Your task to perform on an android device: turn on translation in the chrome app Image 0: 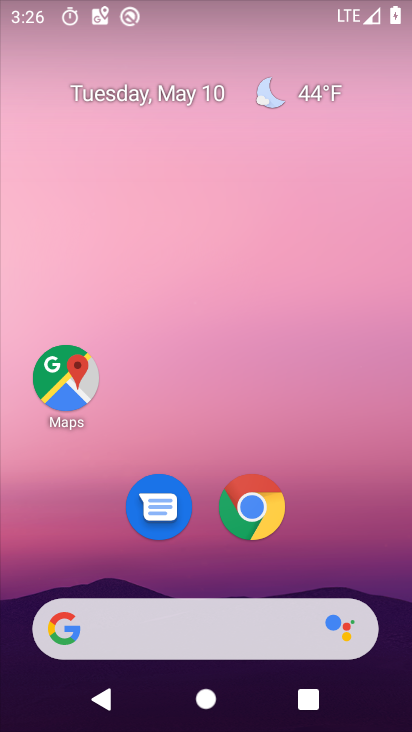
Step 0: click (241, 514)
Your task to perform on an android device: turn on translation in the chrome app Image 1: 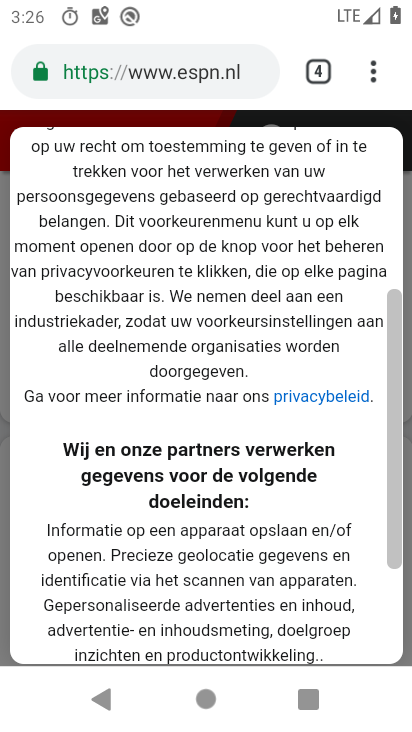
Step 1: click (375, 65)
Your task to perform on an android device: turn on translation in the chrome app Image 2: 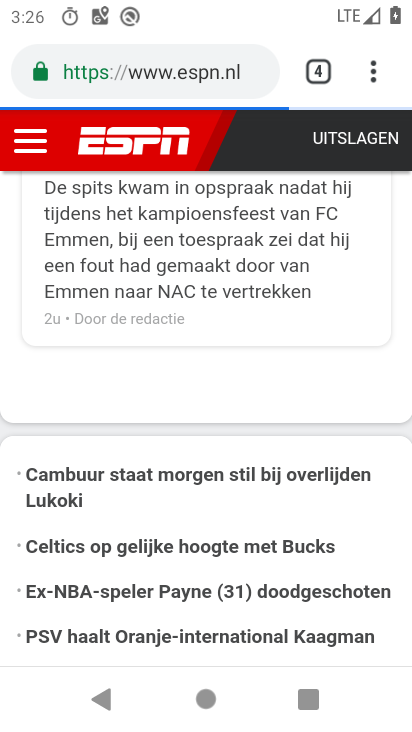
Step 2: click (375, 65)
Your task to perform on an android device: turn on translation in the chrome app Image 3: 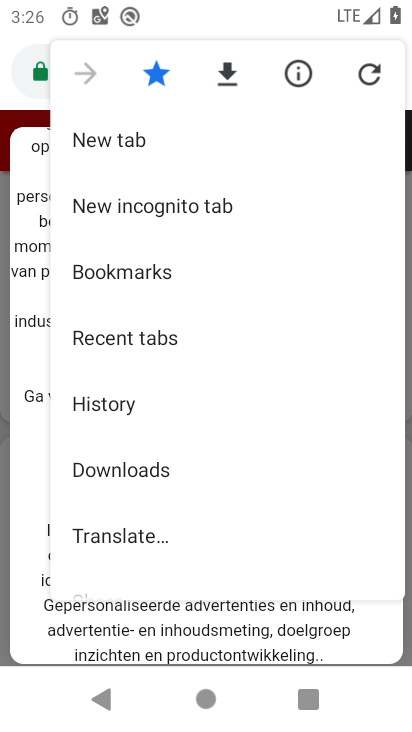
Step 3: drag from (189, 544) to (181, 351)
Your task to perform on an android device: turn on translation in the chrome app Image 4: 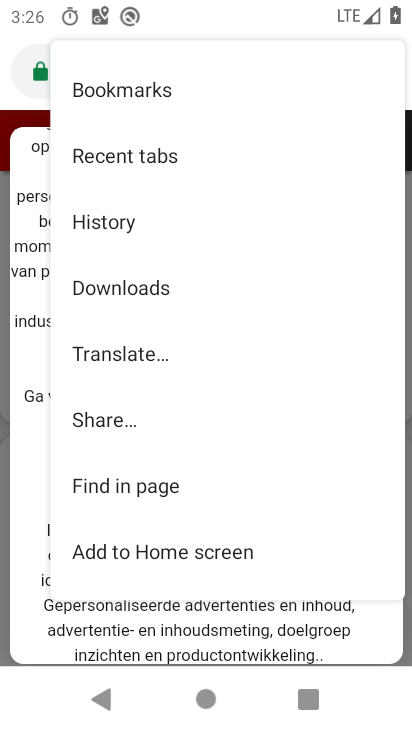
Step 4: drag from (205, 552) to (171, 268)
Your task to perform on an android device: turn on translation in the chrome app Image 5: 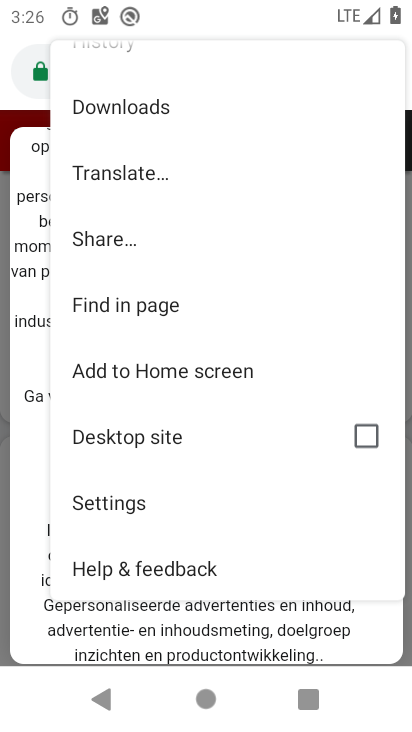
Step 5: click (106, 178)
Your task to perform on an android device: turn on translation in the chrome app Image 6: 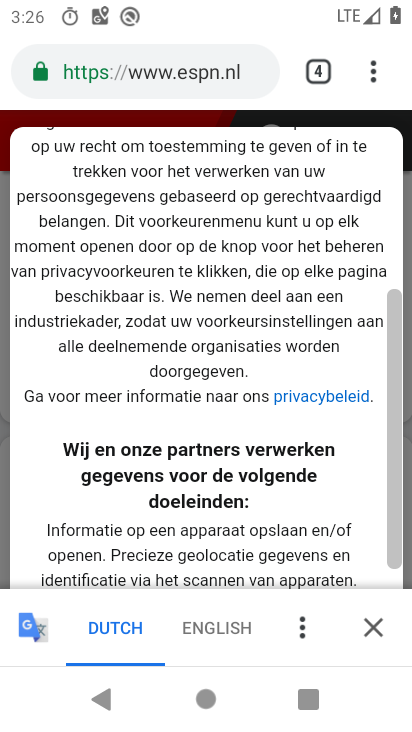
Step 6: click (369, 70)
Your task to perform on an android device: turn on translation in the chrome app Image 7: 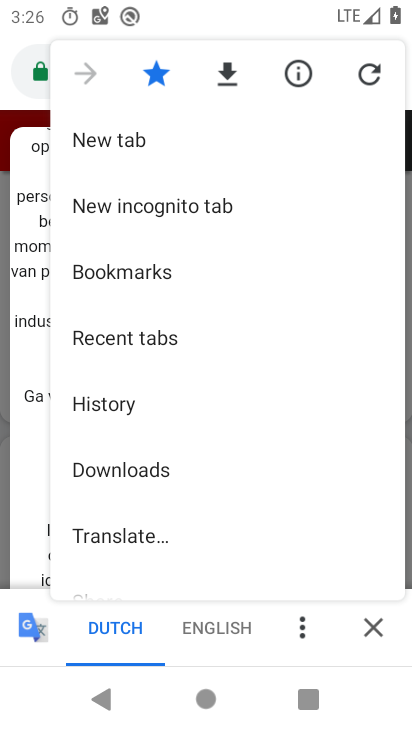
Step 7: drag from (190, 560) to (209, 239)
Your task to perform on an android device: turn on translation in the chrome app Image 8: 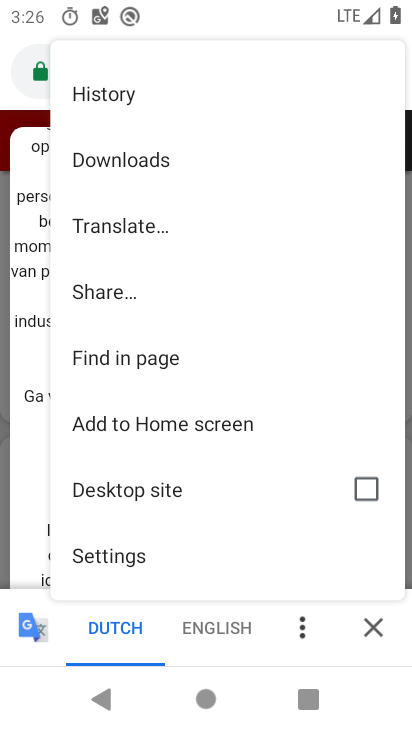
Step 8: click (126, 562)
Your task to perform on an android device: turn on translation in the chrome app Image 9: 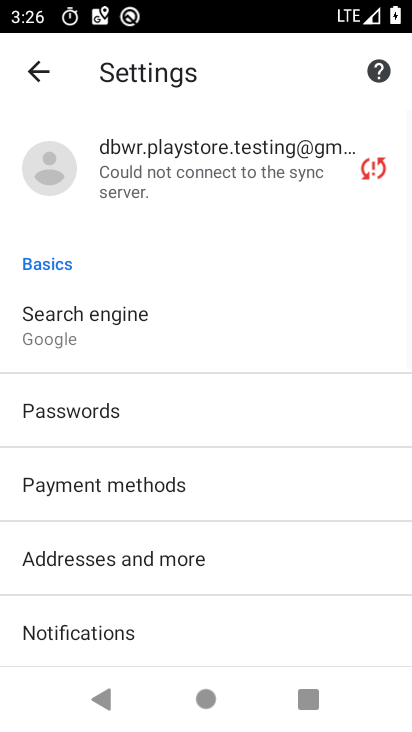
Step 9: drag from (137, 588) to (138, 242)
Your task to perform on an android device: turn on translation in the chrome app Image 10: 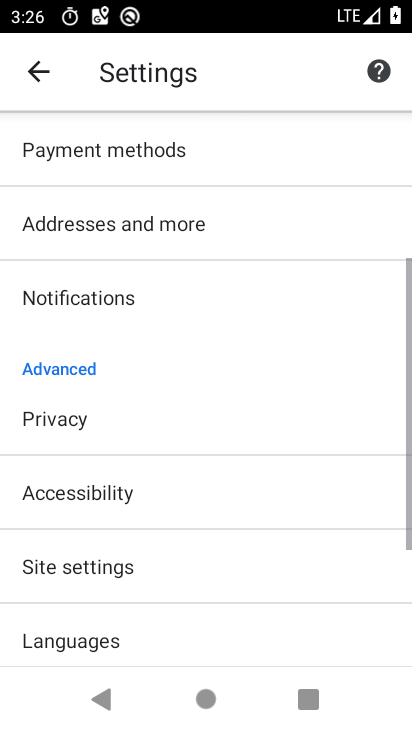
Step 10: drag from (121, 613) to (124, 353)
Your task to perform on an android device: turn on translation in the chrome app Image 11: 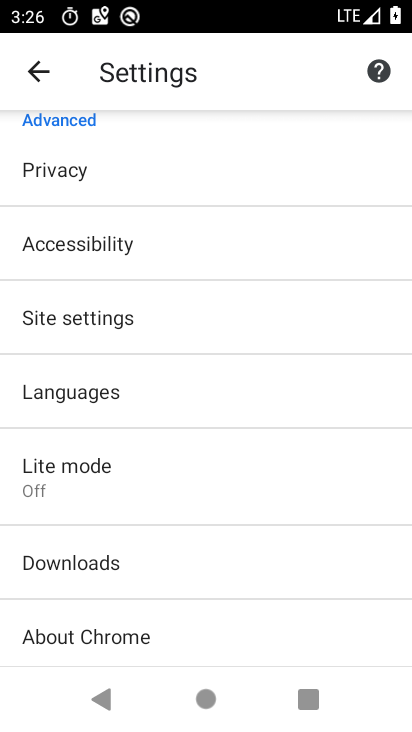
Step 11: click (54, 397)
Your task to perform on an android device: turn on translation in the chrome app Image 12: 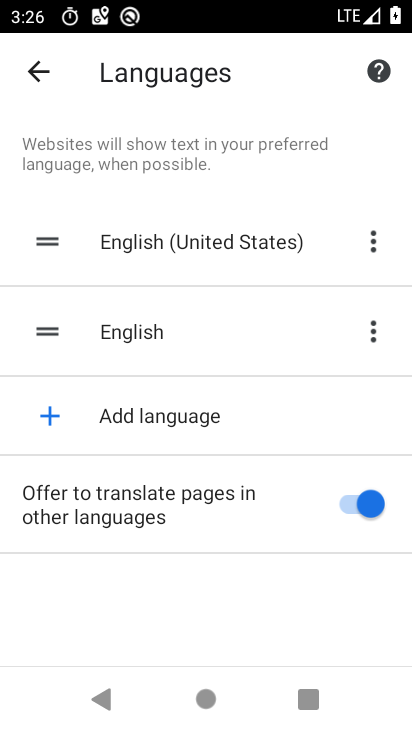
Step 12: task complete